Your task to perform on an android device: Open notification settings Image 0: 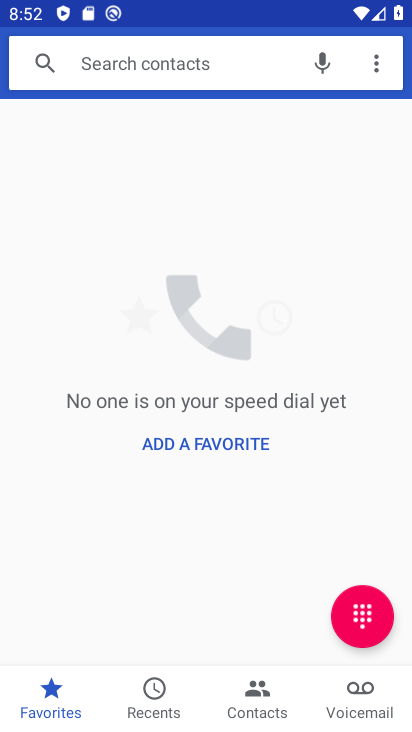
Step 0: press home button
Your task to perform on an android device: Open notification settings Image 1: 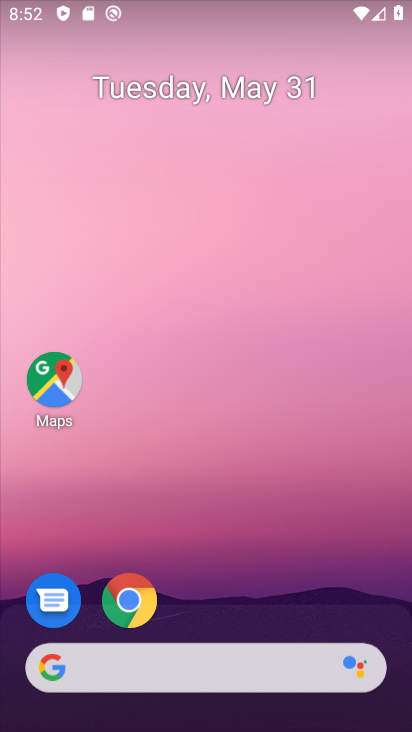
Step 1: drag from (216, 700) to (292, 11)
Your task to perform on an android device: Open notification settings Image 2: 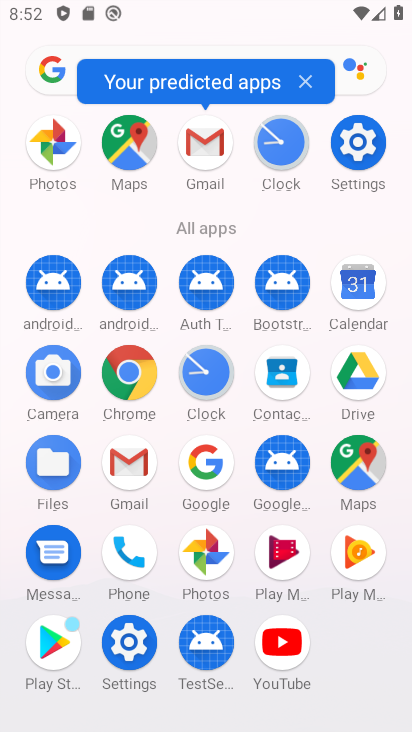
Step 2: click (340, 155)
Your task to perform on an android device: Open notification settings Image 3: 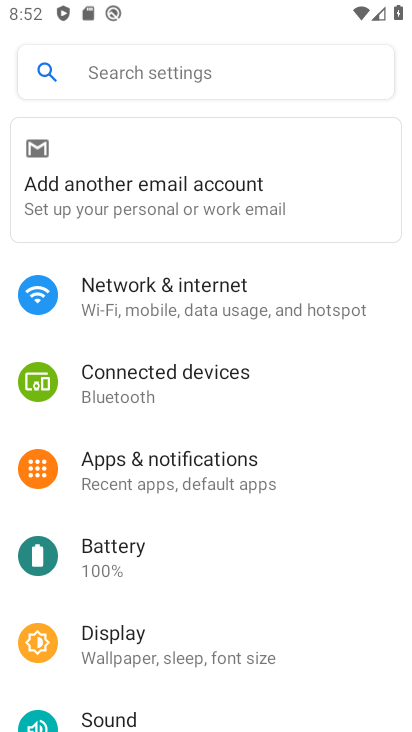
Step 3: click (135, 66)
Your task to perform on an android device: Open notification settings Image 4: 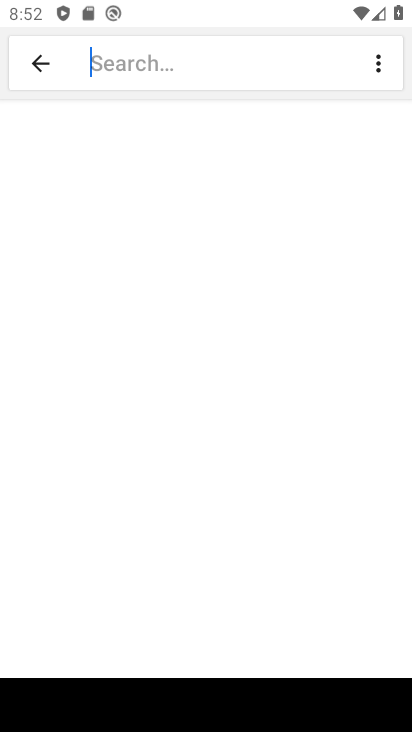
Step 4: drag from (382, 712) to (357, 578)
Your task to perform on an android device: Open notification settings Image 5: 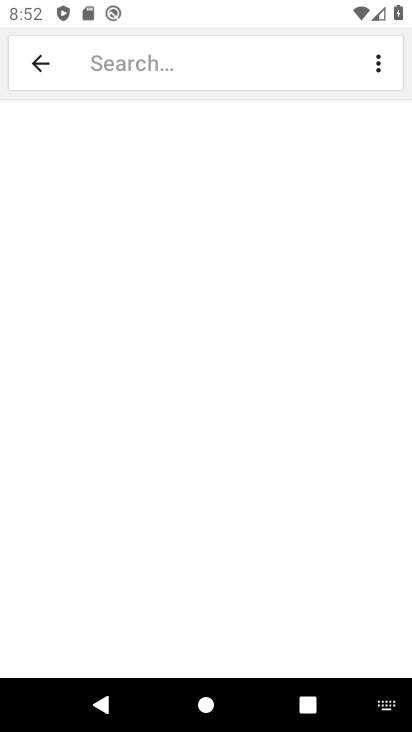
Step 5: click (395, 709)
Your task to perform on an android device: Open notification settings Image 6: 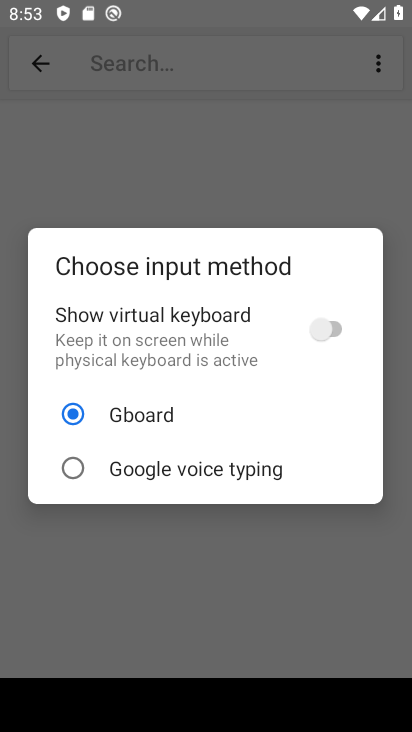
Step 6: click (336, 331)
Your task to perform on an android device: Open notification settings Image 7: 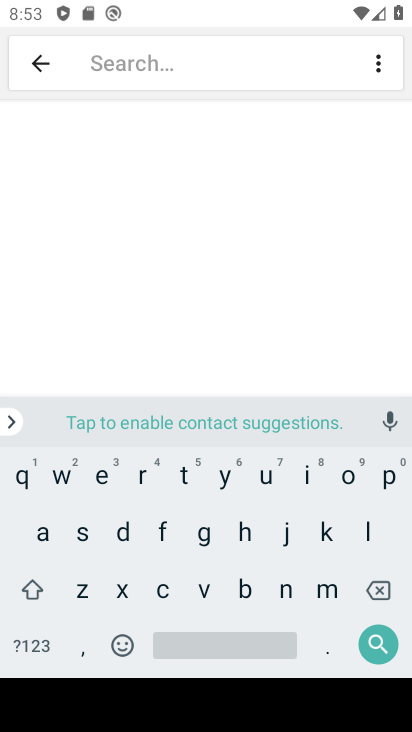
Step 7: click (164, 528)
Your task to perform on an android device: Open notification settings Image 8: 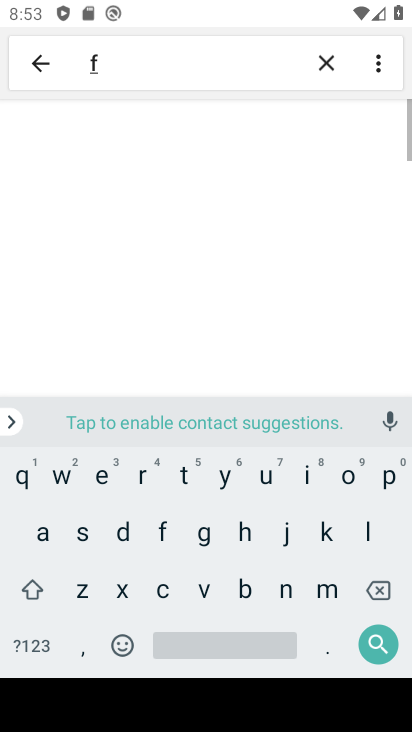
Step 8: click (249, 536)
Your task to perform on an android device: Open notification settings Image 9: 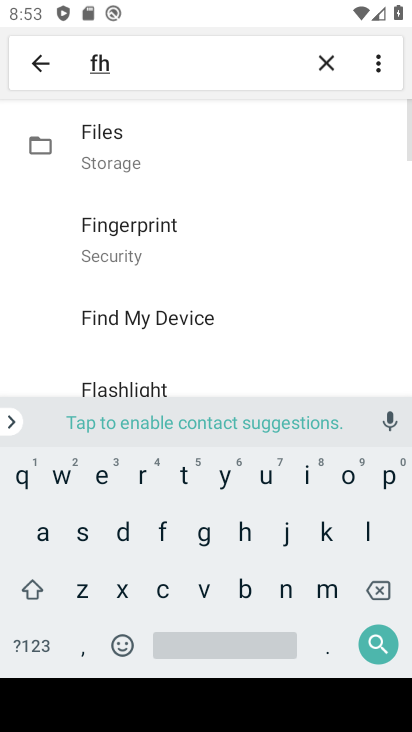
Step 9: click (291, 531)
Your task to perform on an android device: Open notification settings Image 10: 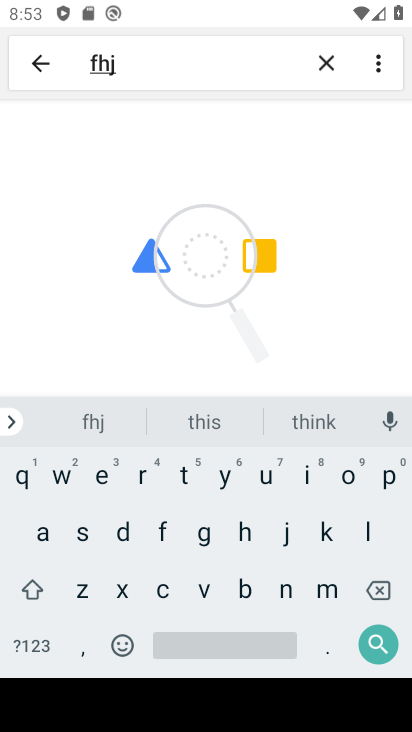
Step 10: click (378, 592)
Your task to perform on an android device: Open notification settings Image 11: 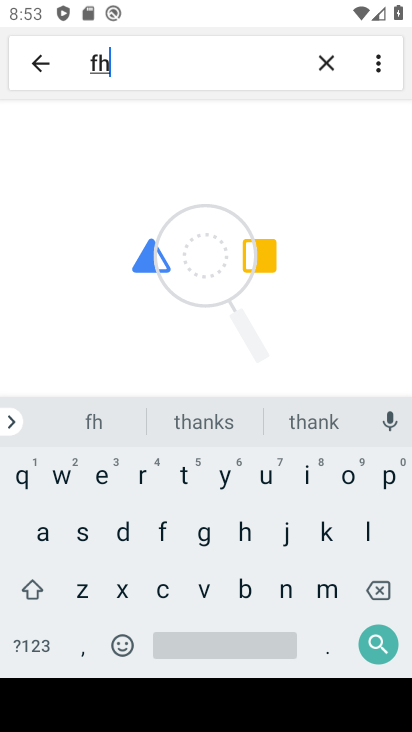
Step 11: click (378, 592)
Your task to perform on an android device: Open notification settings Image 12: 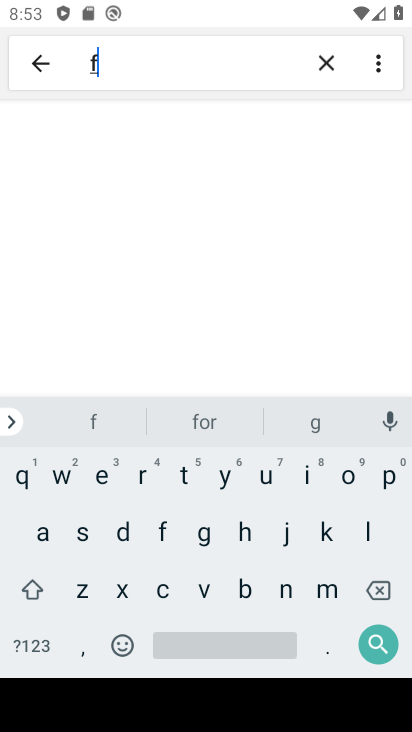
Step 12: click (378, 592)
Your task to perform on an android device: Open notification settings Image 13: 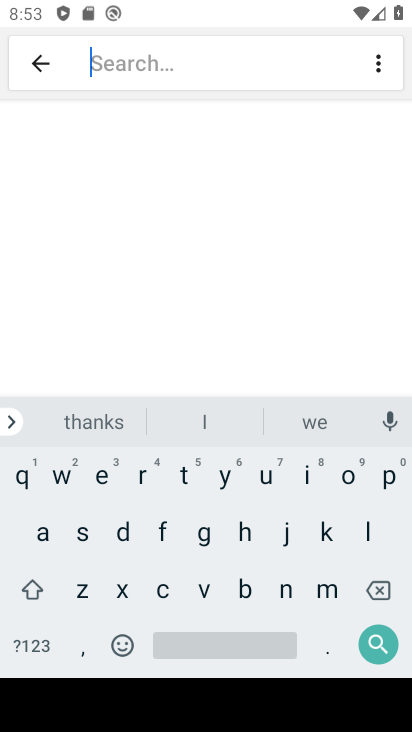
Step 13: click (378, 592)
Your task to perform on an android device: Open notification settings Image 14: 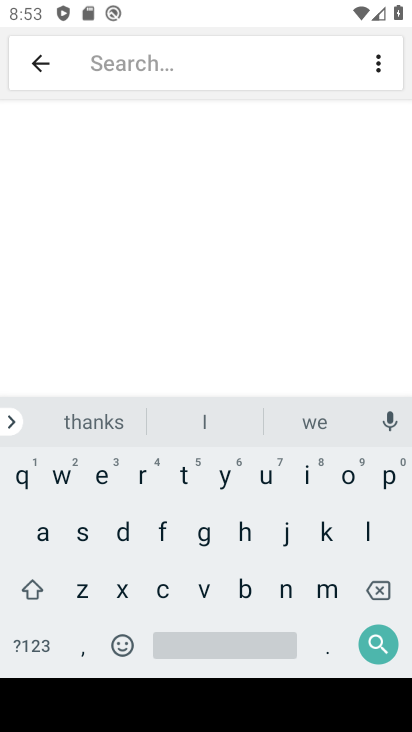
Step 14: click (287, 587)
Your task to perform on an android device: Open notification settings Image 15: 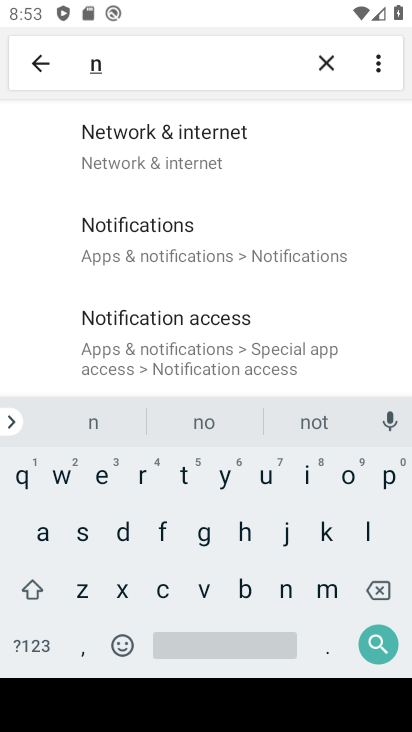
Step 15: click (350, 469)
Your task to perform on an android device: Open notification settings Image 16: 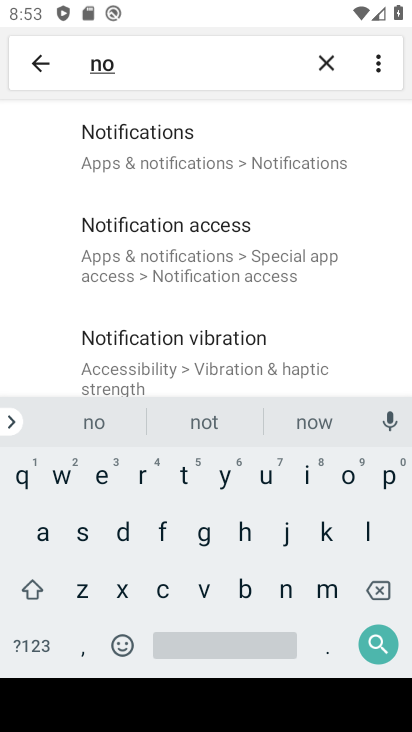
Step 16: click (170, 166)
Your task to perform on an android device: Open notification settings Image 17: 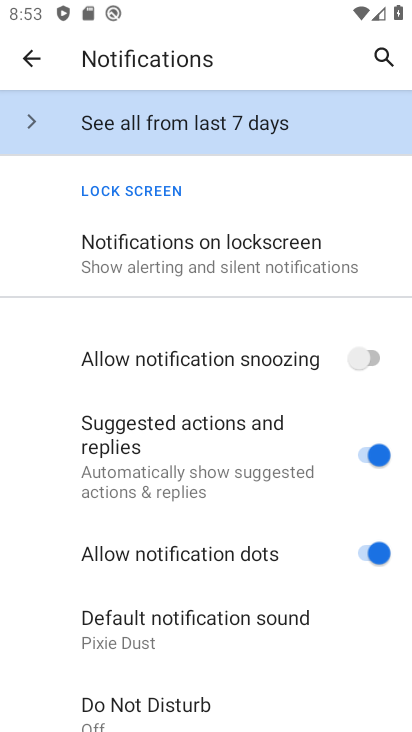
Step 17: click (151, 250)
Your task to perform on an android device: Open notification settings Image 18: 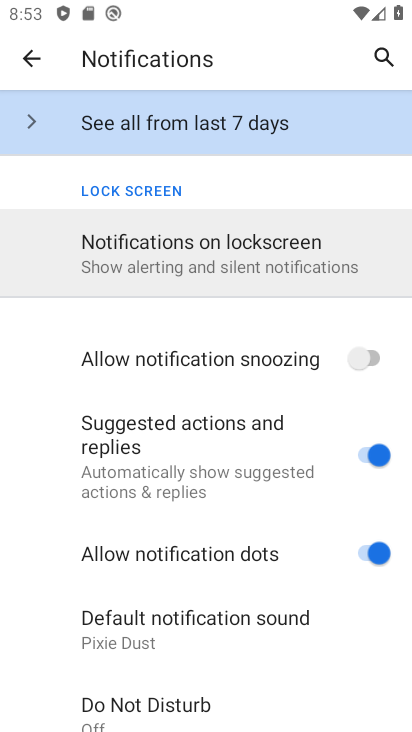
Step 18: click (151, 250)
Your task to perform on an android device: Open notification settings Image 19: 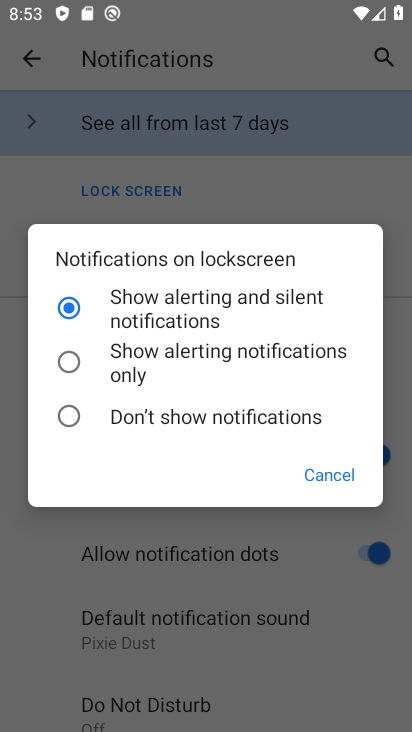
Step 19: task complete